Your task to perform on an android device: Open accessibility settings Image 0: 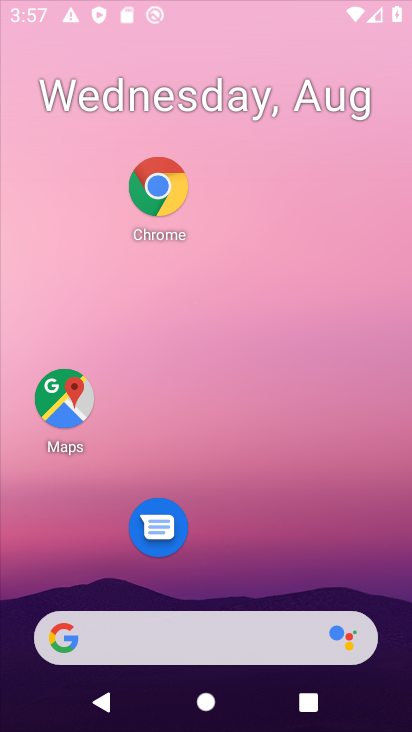
Step 0: click (254, 237)
Your task to perform on an android device: Open accessibility settings Image 1: 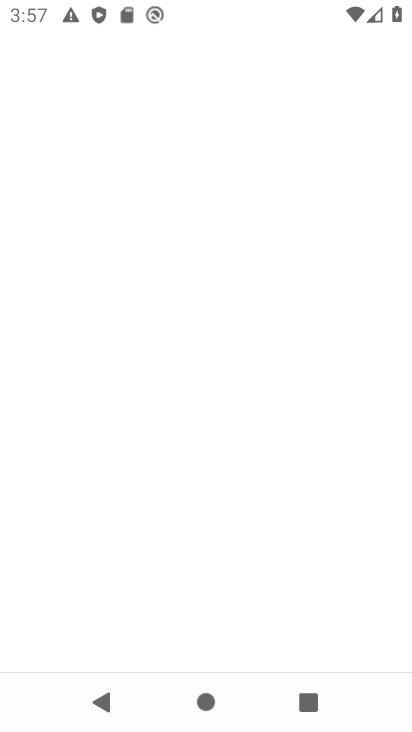
Step 1: press home button
Your task to perform on an android device: Open accessibility settings Image 2: 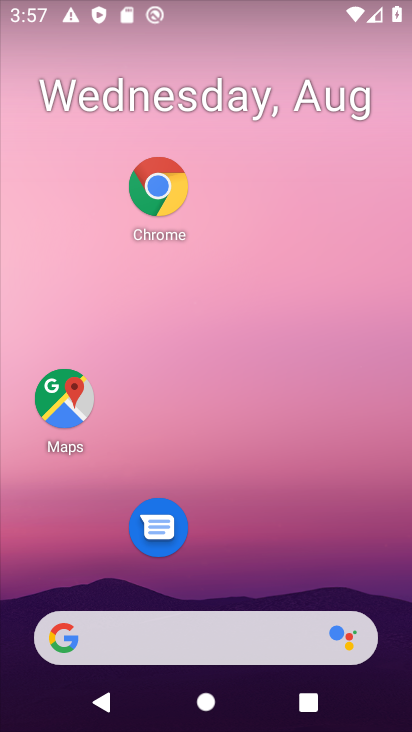
Step 2: drag from (201, 609) to (183, 78)
Your task to perform on an android device: Open accessibility settings Image 3: 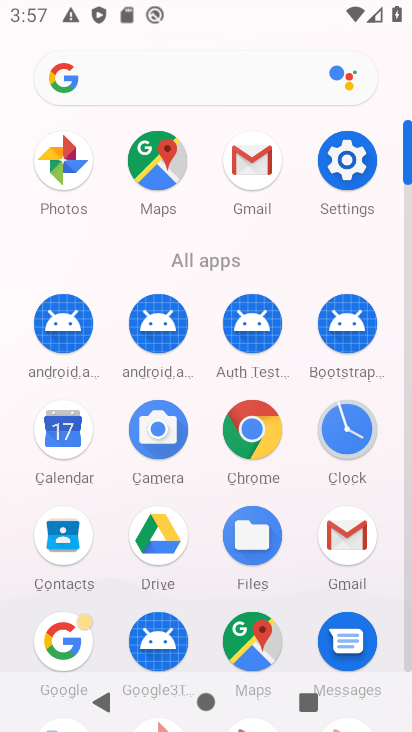
Step 3: click (341, 153)
Your task to perform on an android device: Open accessibility settings Image 4: 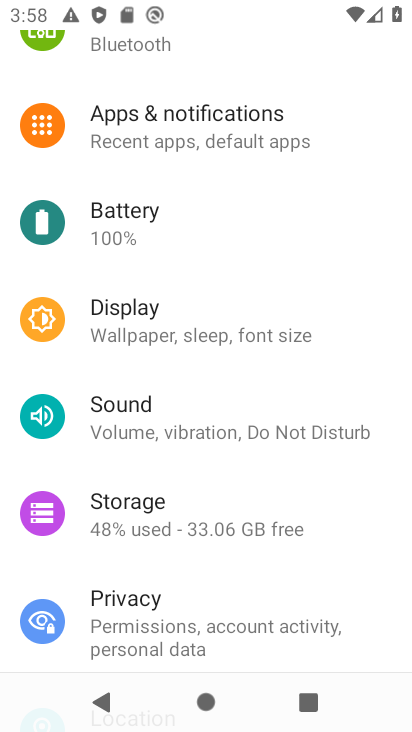
Step 4: drag from (263, 579) to (241, 9)
Your task to perform on an android device: Open accessibility settings Image 5: 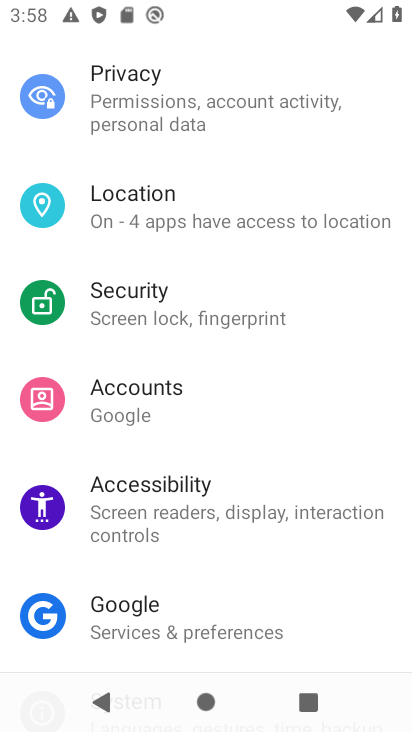
Step 5: click (241, 526)
Your task to perform on an android device: Open accessibility settings Image 6: 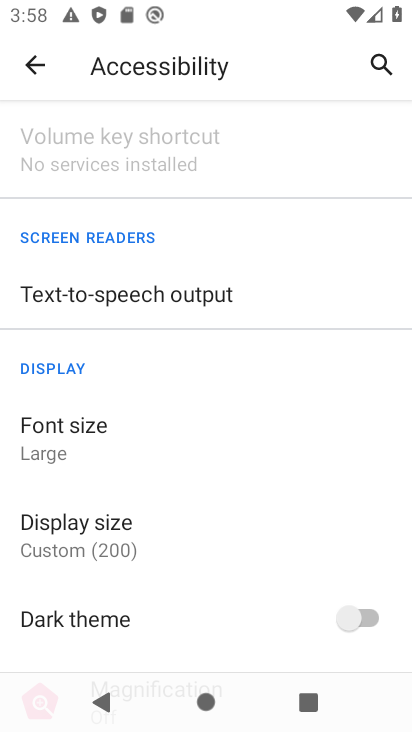
Step 6: task complete